Your task to perform on an android device: Search for Italian restaurants on Maps Image 0: 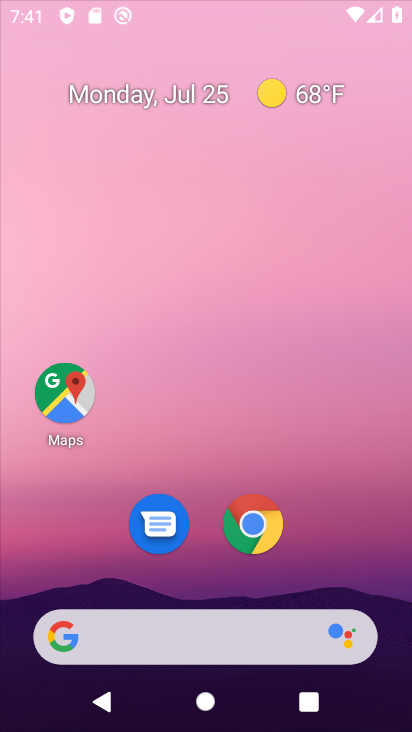
Step 0: click (409, 537)
Your task to perform on an android device: Search for Italian restaurants on Maps Image 1: 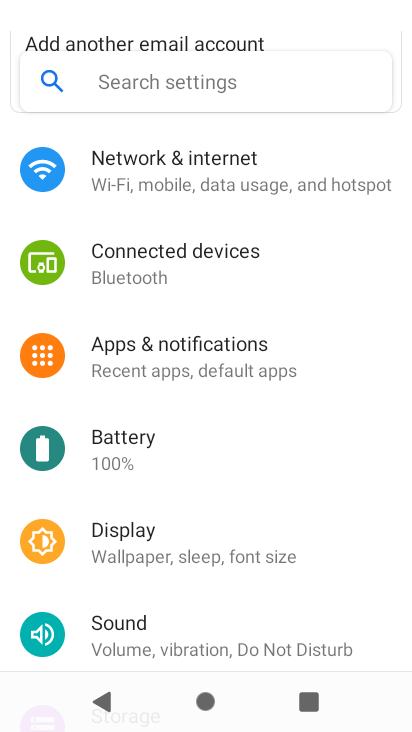
Step 1: press home button
Your task to perform on an android device: Search for Italian restaurants on Maps Image 2: 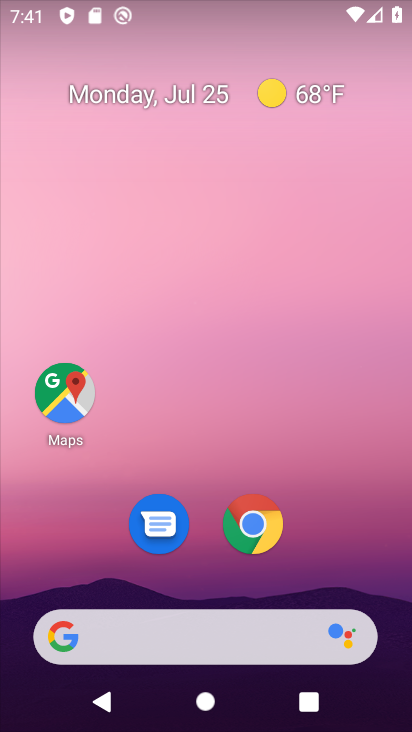
Step 2: click (66, 399)
Your task to perform on an android device: Search for Italian restaurants on Maps Image 3: 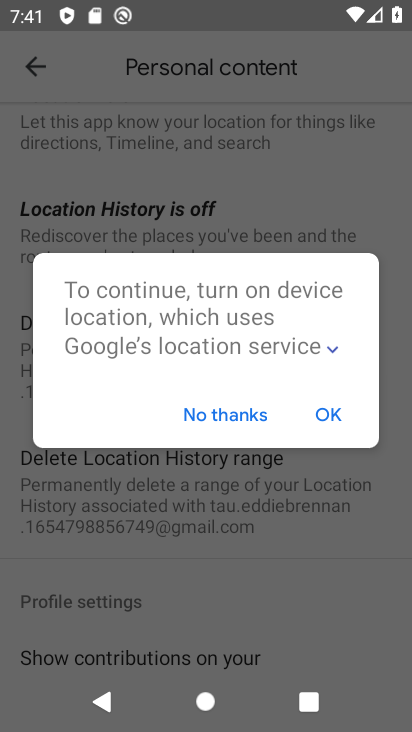
Step 3: click (333, 413)
Your task to perform on an android device: Search for Italian restaurants on Maps Image 4: 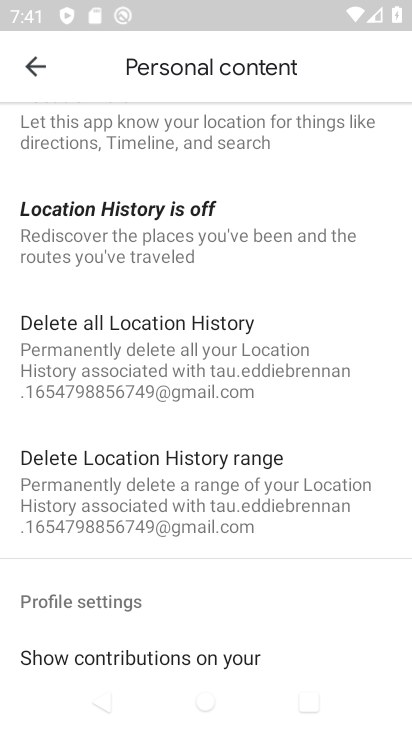
Step 4: click (38, 60)
Your task to perform on an android device: Search for Italian restaurants on Maps Image 5: 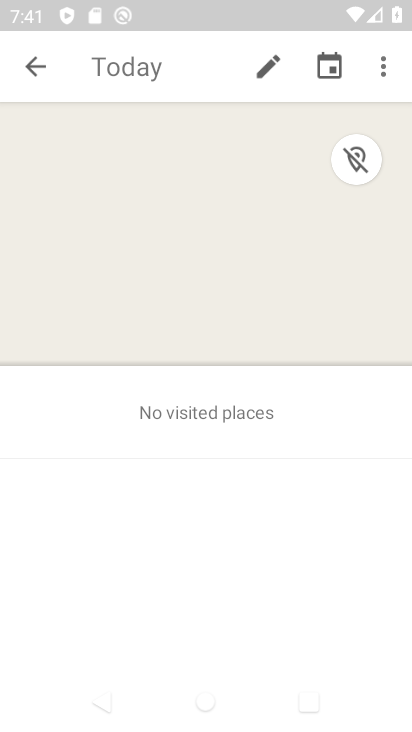
Step 5: click (38, 60)
Your task to perform on an android device: Search for Italian restaurants on Maps Image 6: 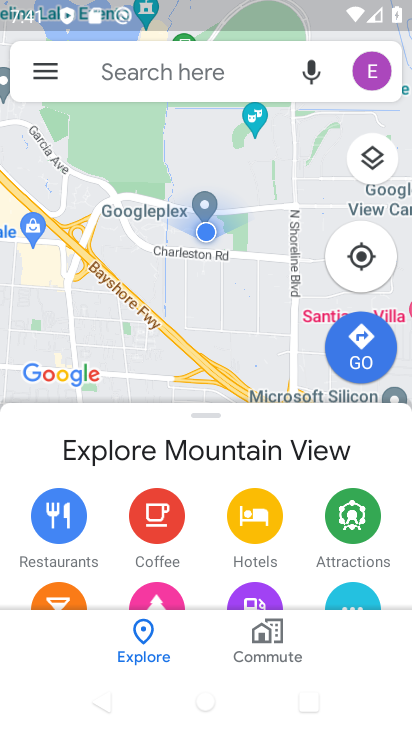
Step 6: click (134, 59)
Your task to perform on an android device: Search for Italian restaurants on Maps Image 7: 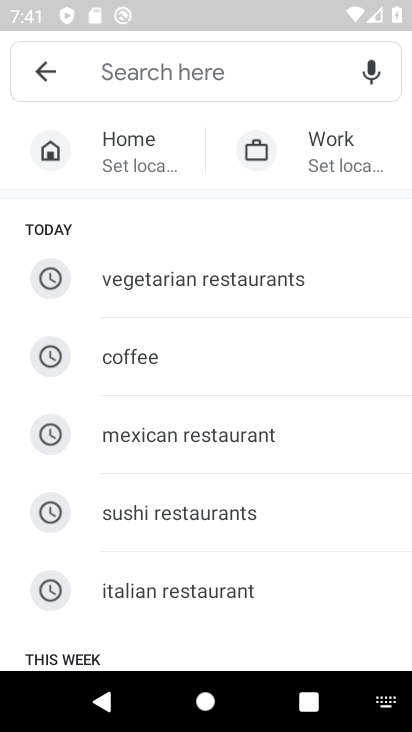
Step 7: click (169, 582)
Your task to perform on an android device: Search for Italian restaurants on Maps Image 8: 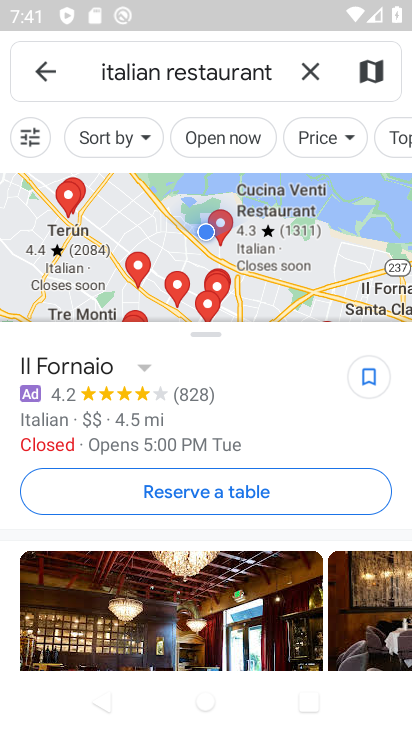
Step 8: task complete